Your task to perform on an android device: Open privacy settings Image 0: 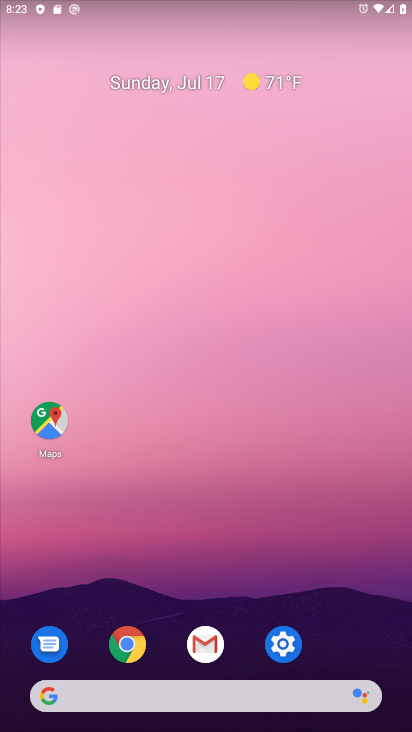
Step 0: click (293, 642)
Your task to perform on an android device: Open privacy settings Image 1: 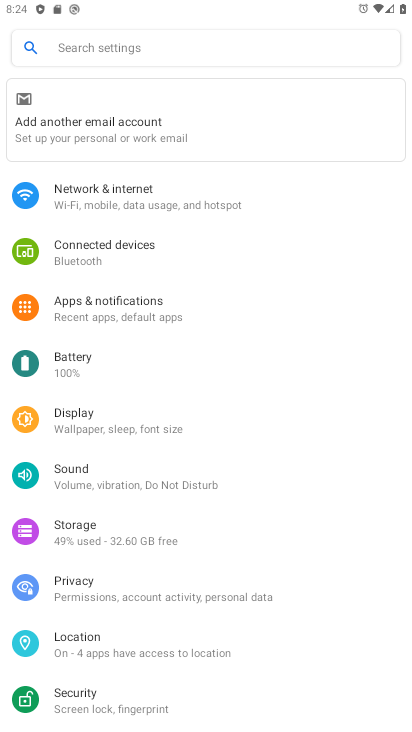
Step 1: click (127, 593)
Your task to perform on an android device: Open privacy settings Image 2: 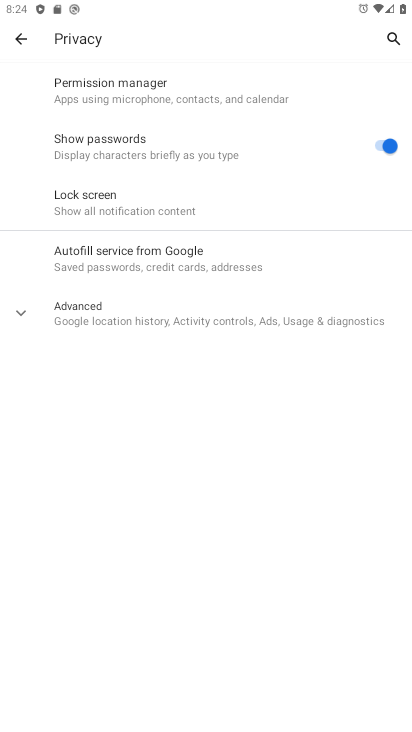
Step 2: task complete